Your task to perform on an android device: search for starred emails in the gmail app Image 0: 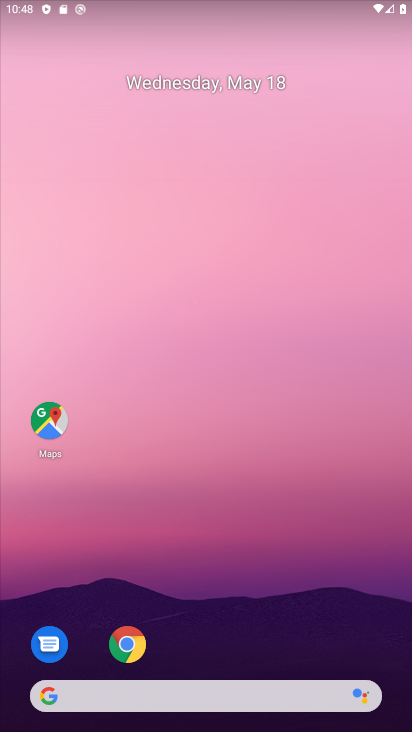
Step 0: drag from (368, 655) to (272, 80)
Your task to perform on an android device: search for starred emails in the gmail app Image 1: 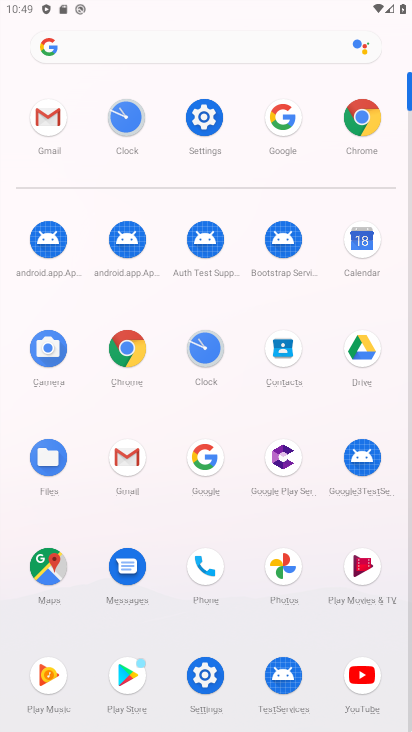
Step 1: click (37, 131)
Your task to perform on an android device: search for starred emails in the gmail app Image 2: 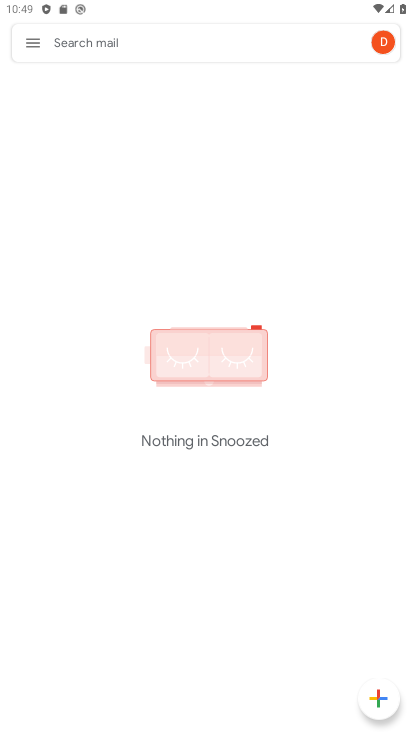
Step 2: click (31, 55)
Your task to perform on an android device: search for starred emails in the gmail app Image 3: 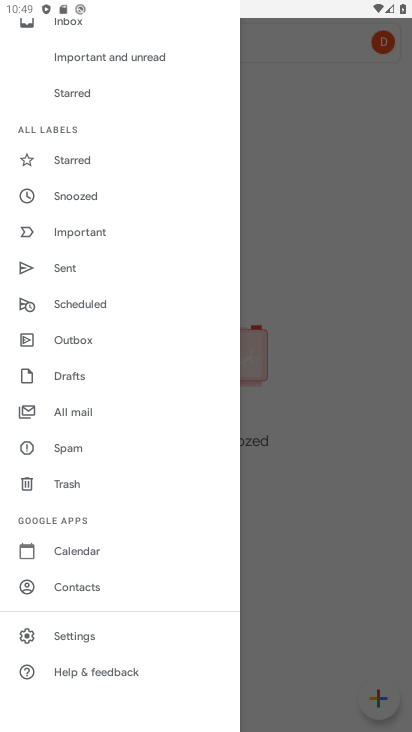
Step 3: click (106, 167)
Your task to perform on an android device: search for starred emails in the gmail app Image 4: 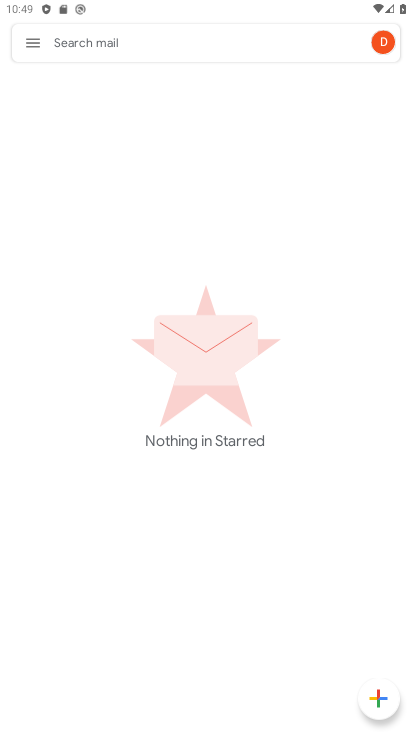
Step 4: task complete